Your task to perform on an android device: turn on sleep mode Image 0: 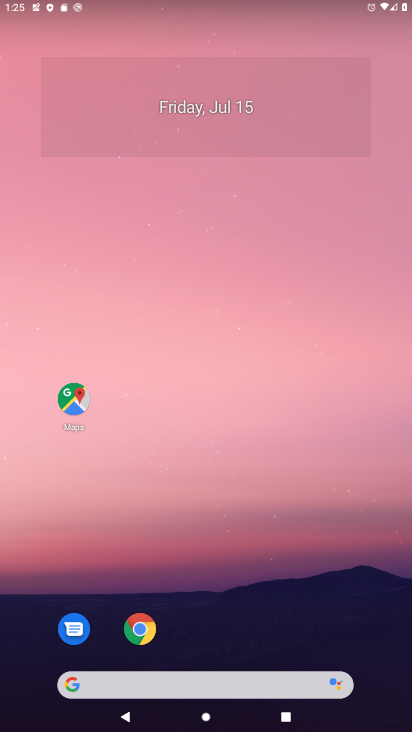
Step 0: drag from (271, 628) to (209, 3)
Your task to perform on an android device: turn on sleep mode Image 1: 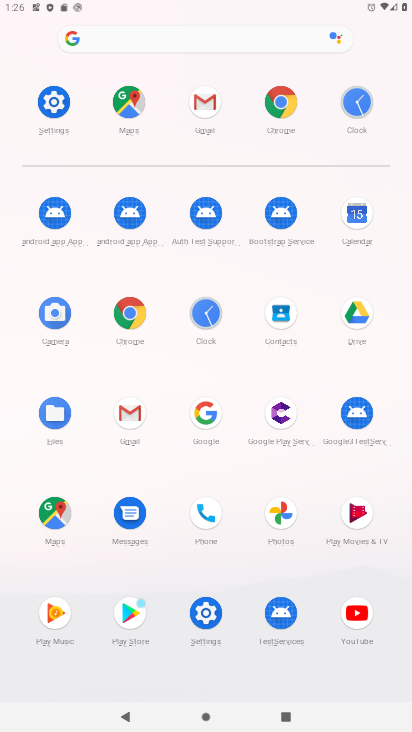
Step 1: click (63, 96)
Your task to perform on an android device: turn on sleep mode Image 2: 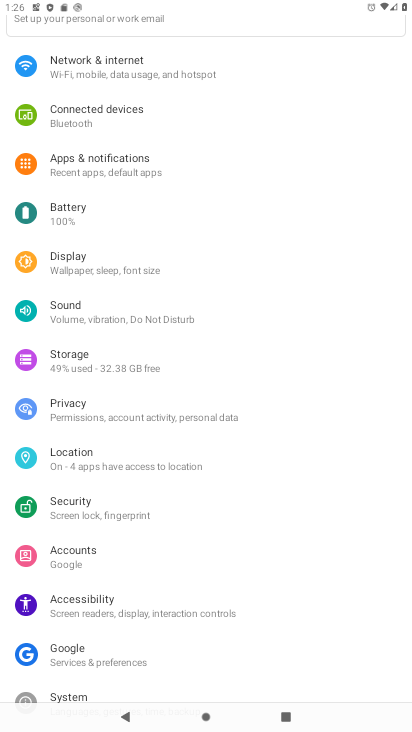
Step 2: click (78, 267)
Your task to perform on an android device: turn on sleep mode Image 3: 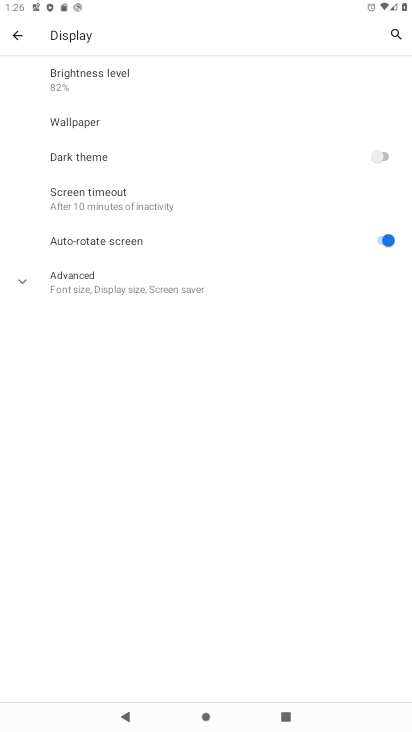
Step 3: click (127, 210)
Your task to perform on an android device: turn on sleep mode Image 4: 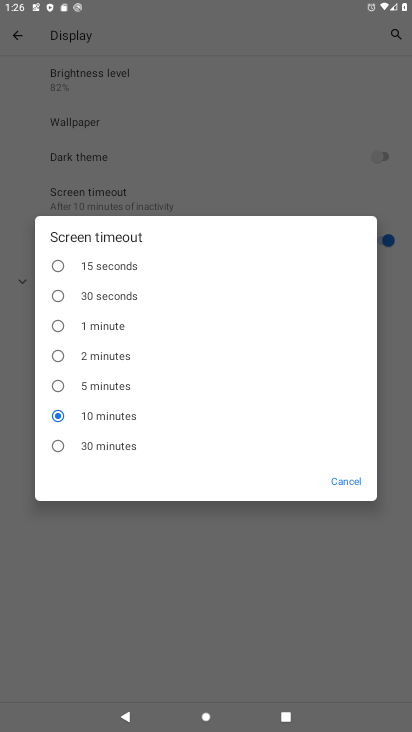
Step 4: task complete